Your task to perform on an android device: open sync settings in chrome Image 0: 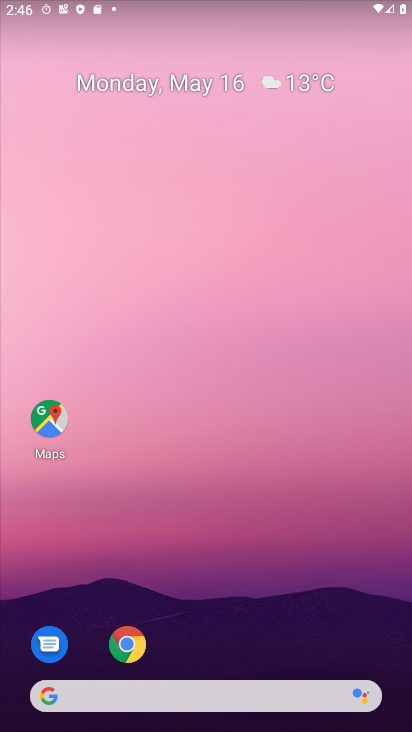
Step 0: drag from (210, 577) to (242, 320)
Your task to perform on an android device: open sync settings in chrome Image 1: 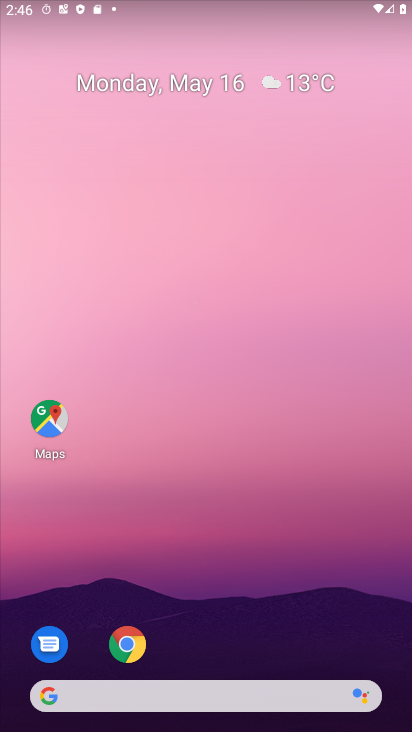
Step 1: drag from (186, 607) to (212, 376)
Your task to perform on an android device: open sync settings in chrome Image 2: 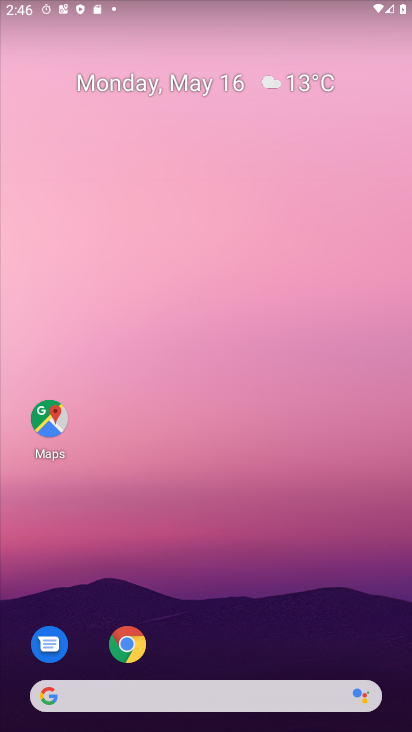
Step 2: drag from (201, 688) to (293, 341)
Your task to perform on an android device: open sync settings in chrome Image 3: 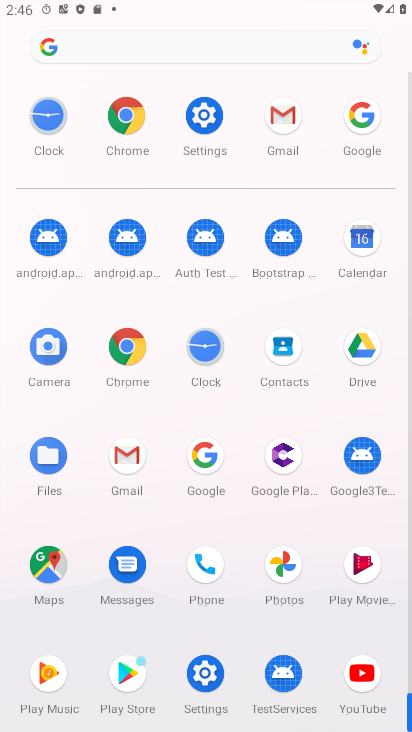
Step 3: click (143, 131)
Your task to perform on an android device: open sync settings in chrome Image 4: 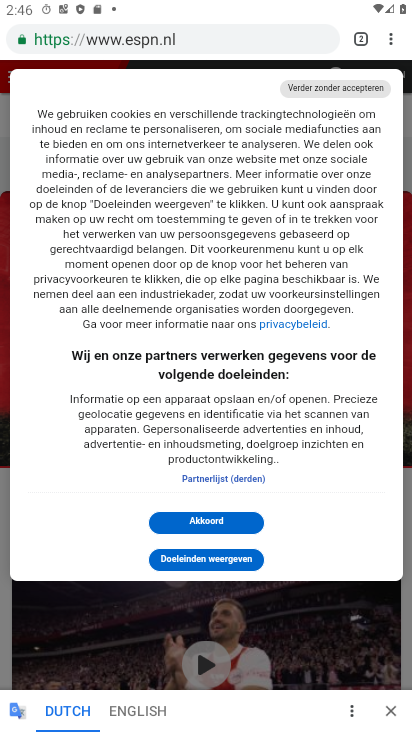
Step 4: click (400, 42)
Your task to perform on an android device: open sync settings in chrome Image 5: 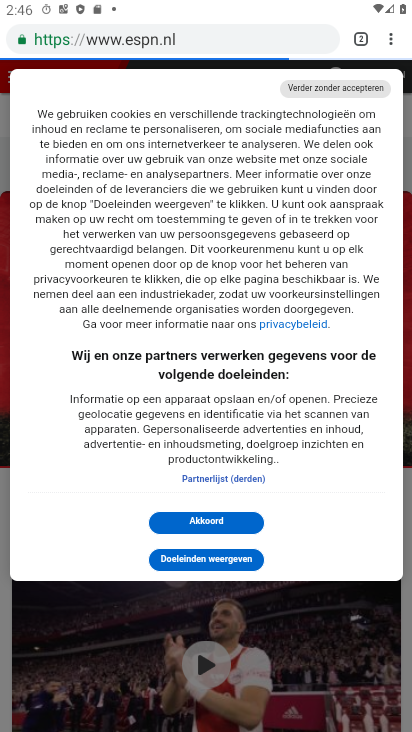
Step 5: click (388, 44)
Your task to perform on an android device: open sync settings in chrome Image 6: 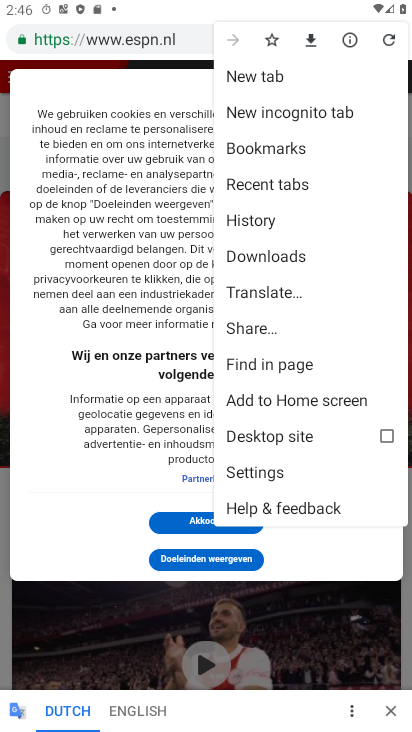
Step 6: click (267, 471)
Your task to perform on an android device: open sync settings in chrome Image 7: 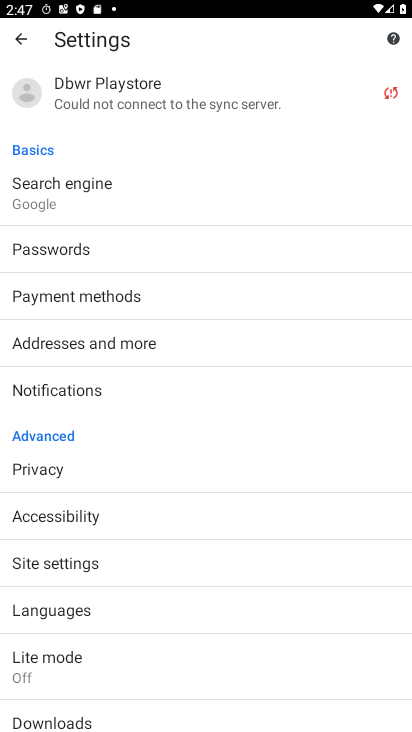
Step 7: drag from (167, 268) to (124, 462)
Your task to perform on an android device: open sync settings in chrome Image 8: 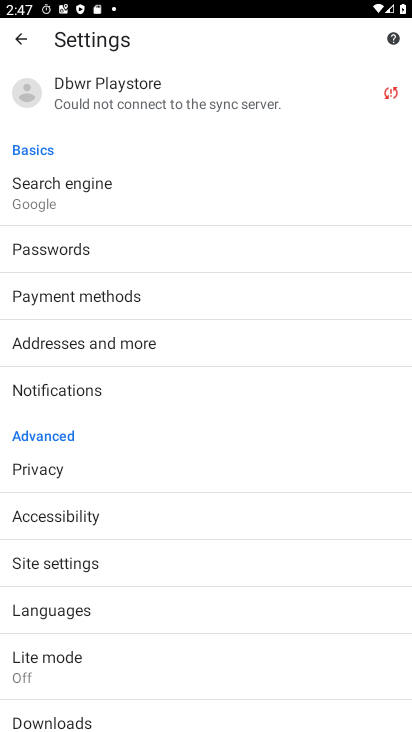
Step 8: click (208, 87)
Your task to perform on an android device: open sync settings in chrome Image 9: 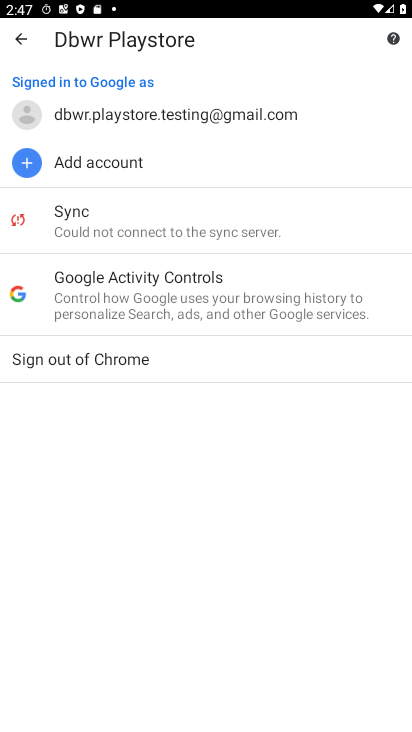
Step 9: click (171, 204)
Your task to perform on an android device: open sync settings in chrome Image 10: 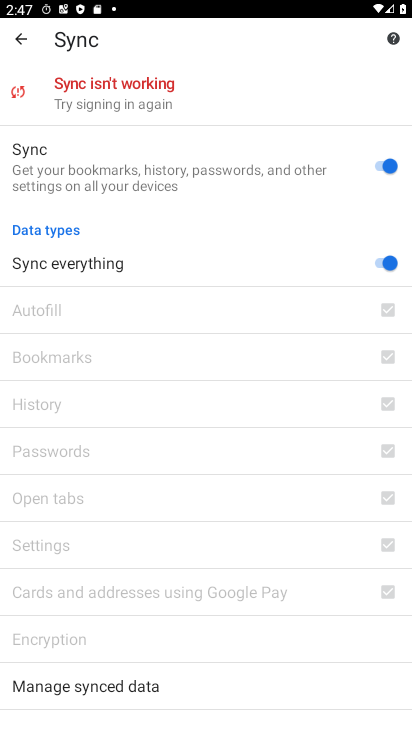
Step 10: task complete